Your task to perform on an android device: move an email to a new category in the gmail app Image 0: 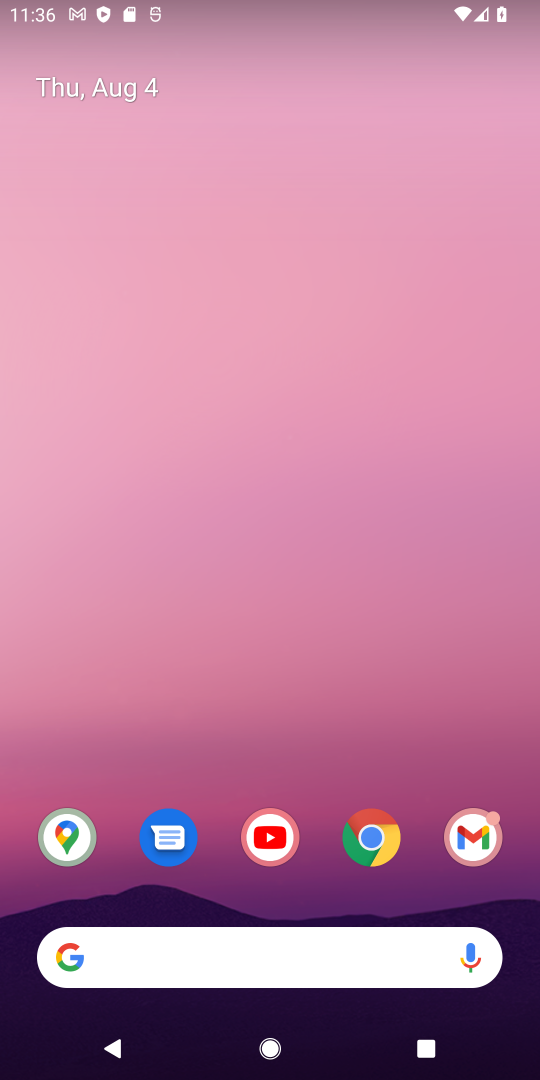
Step 0: click (476, 831)
Your task to perform on an android device: move an email to a new category in the gmail app Image 1: 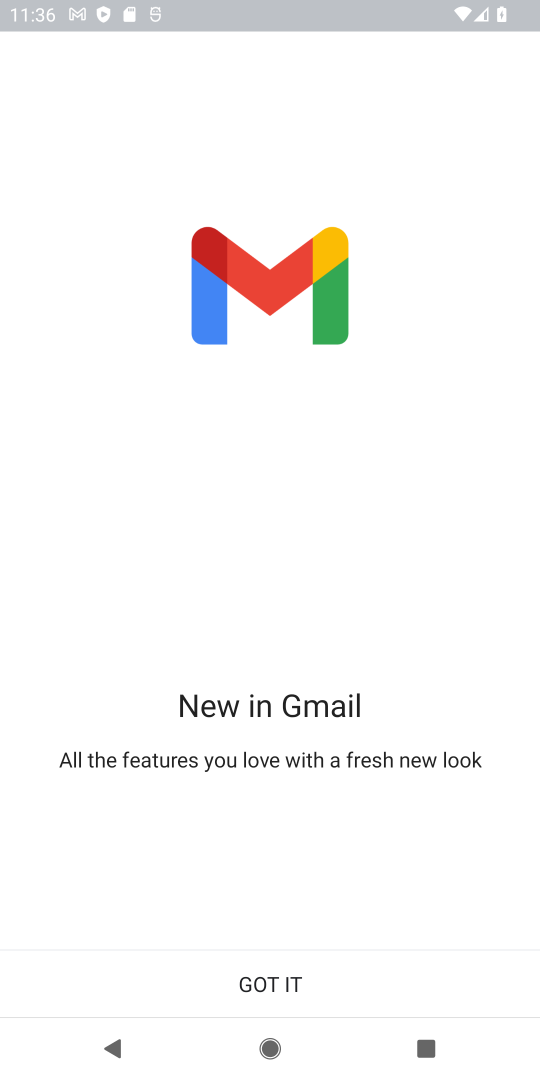
Step 1: click (269, 980)
Your task to perform on an android device: move an email to a new category in the gmail app Image 2: 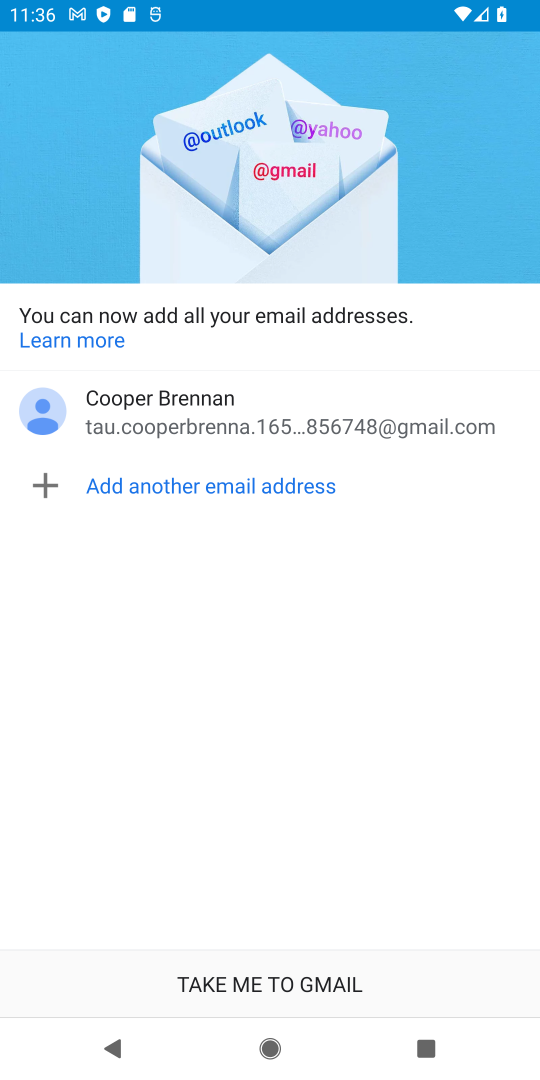
Step 2: click (238, 992)
Your task to perform on an android device: move an email to a new category in the gmail app Image 3: 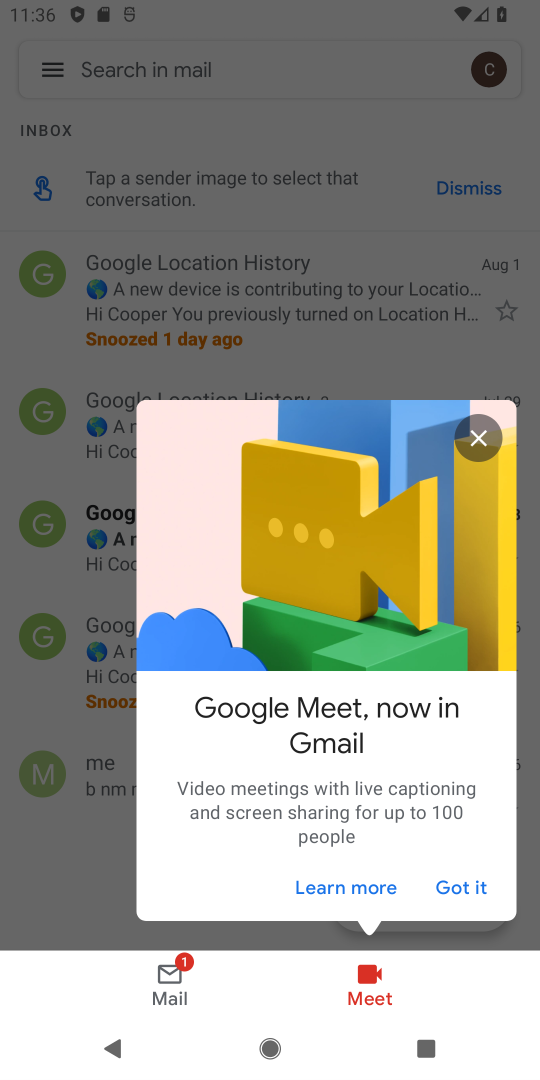
Step 3: click (456, 891)
Your task to perform on an android device: move an email to a new category in the gmail app Image 4: 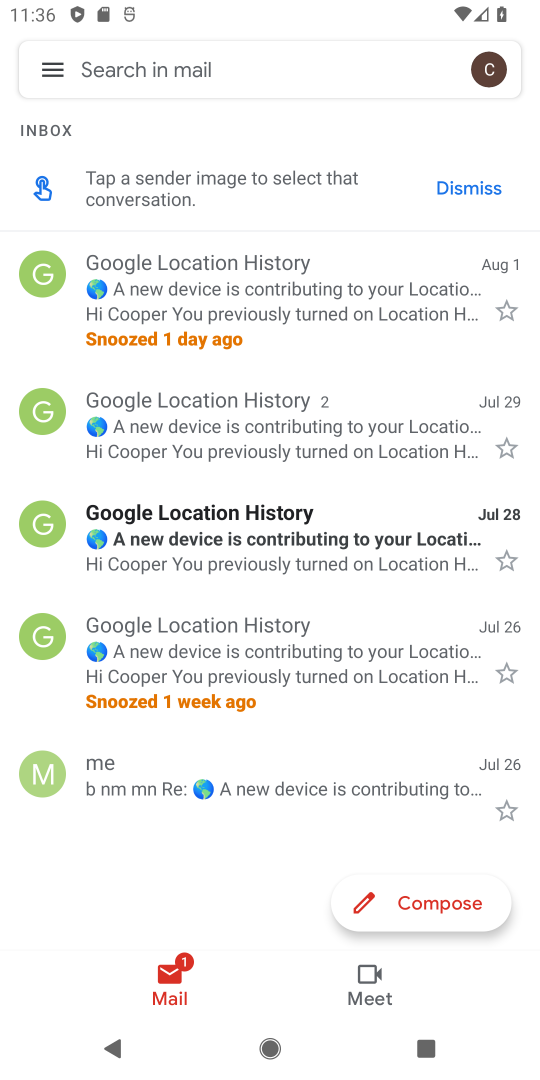
Step 4: click (46, 79)
Your task to perform on an android device: move an email to a new category in the gmail app Image 5: 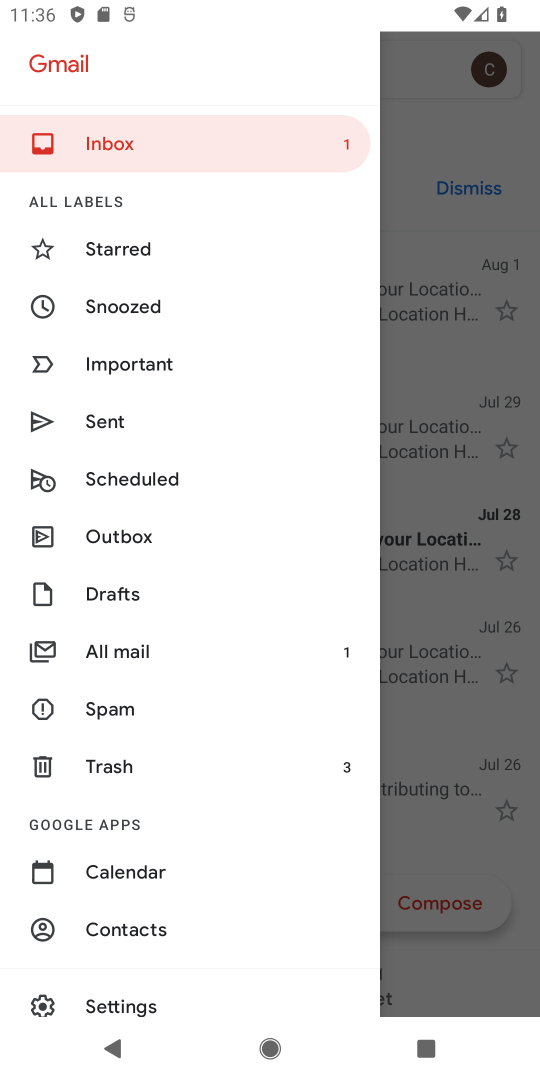
Step 5: click (184, 654)
Your task to perform on an android device: move an email to a new category in the gmail app Image 6: 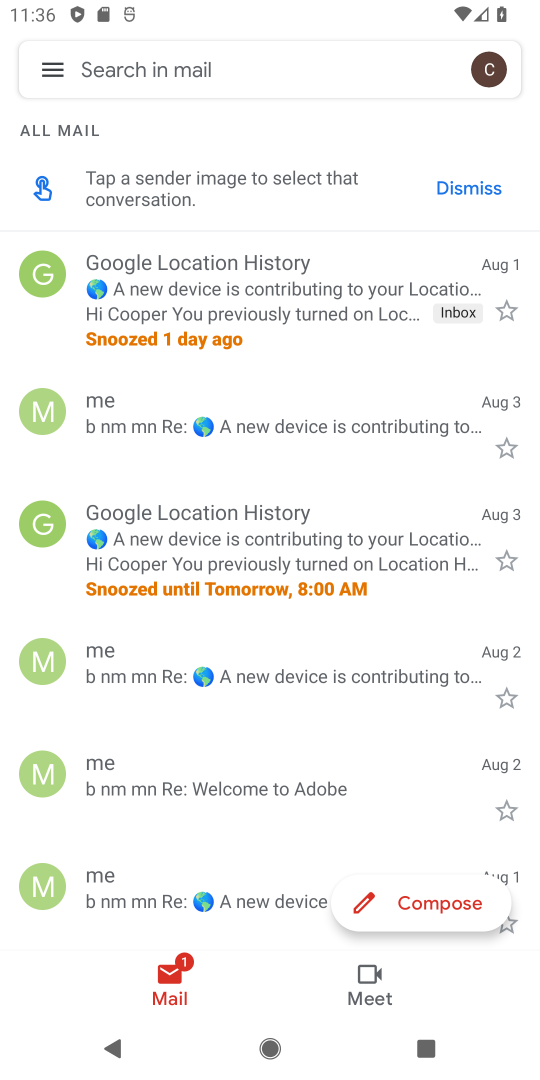
Step 6: click (282, 297)
Your task to perform on an android device: move an email to a new category in the gmail app Image 7: 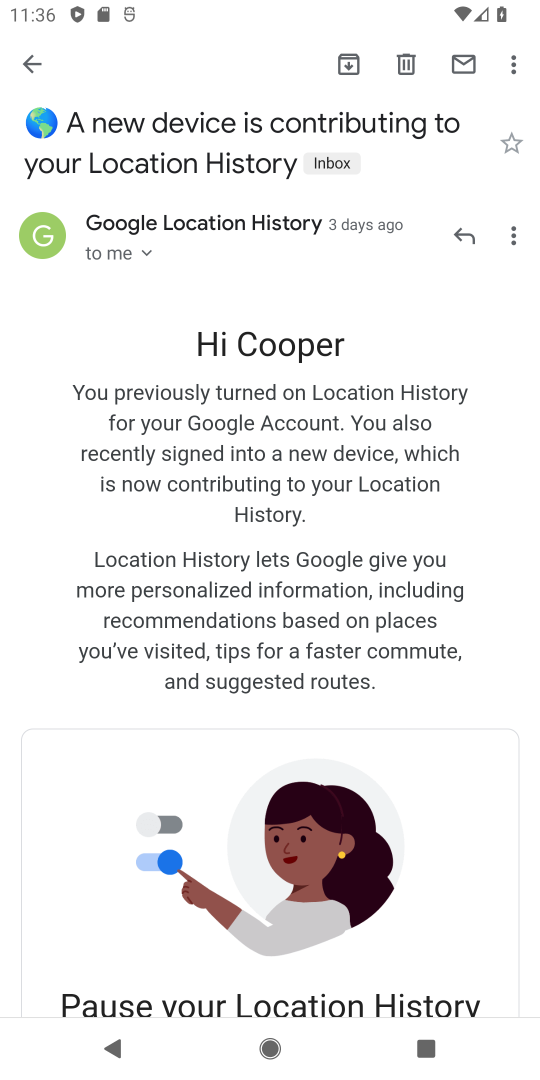
Step 7: click (510, 58)
Your task to perform on an android device: move an email to a new category in the gmail app Image 8: 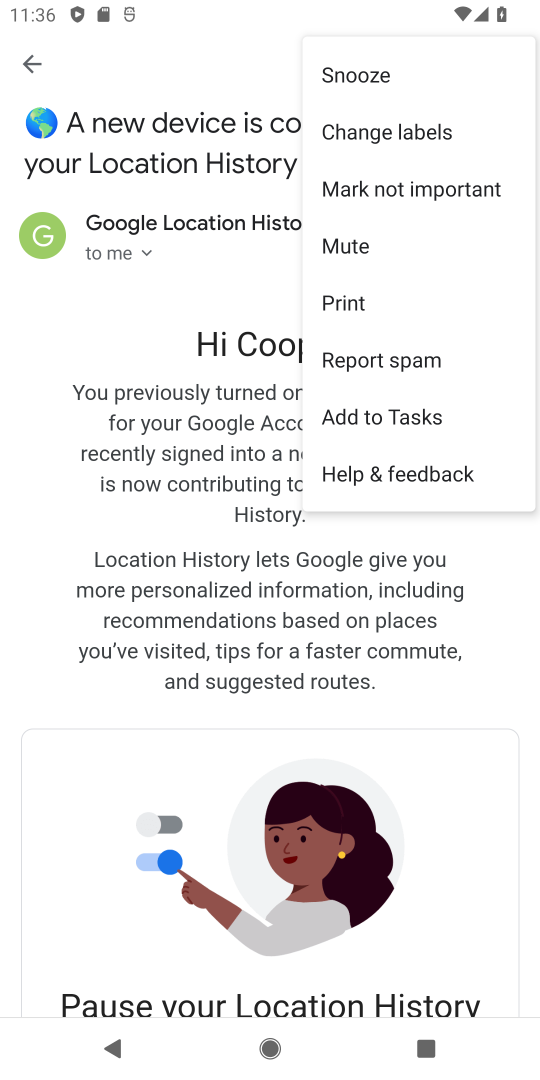
Step 8: click (376, 195)
Your task to perform on an android device: move an email to a new category in the gmail app Image 9: 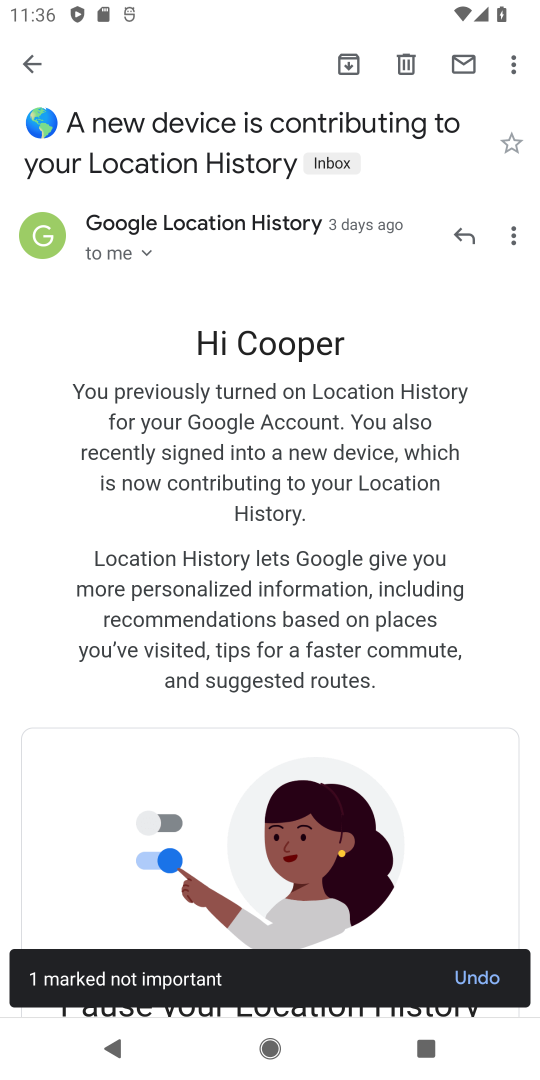
Step 9: task complete